Your task to perform on an android device: Open Youtube and go to the subscriptions tab Image 0: 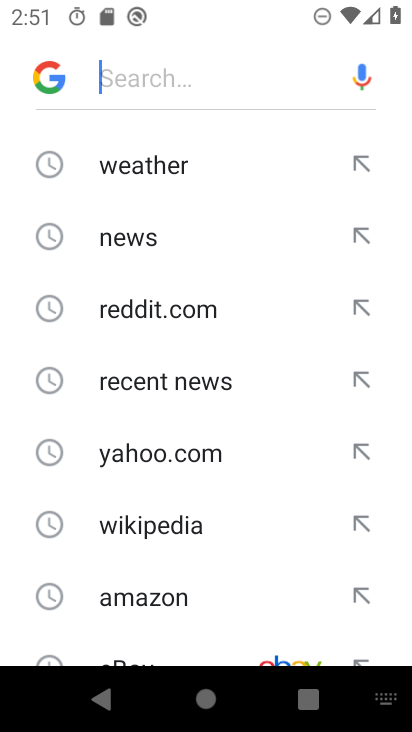
Step 0: press home button
Your task to perform on an android device: Open Youtube and go to the subscriptions tab Image 1: 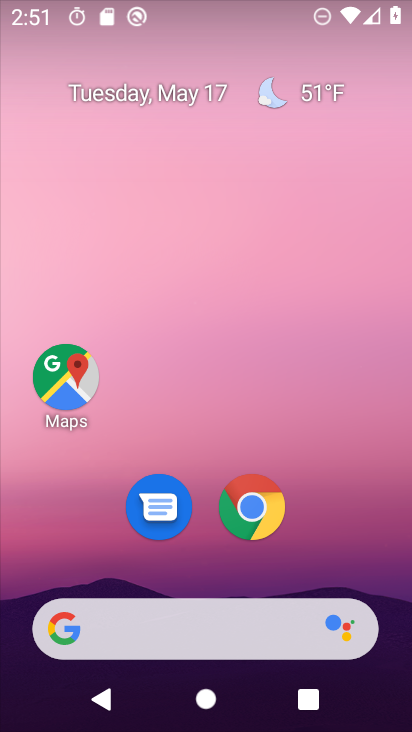
Step 1: drag from (199, 557) to (217, 158)
Your task to perform on an android device: Open Youtube and go to the subscriptions tab Image 2: 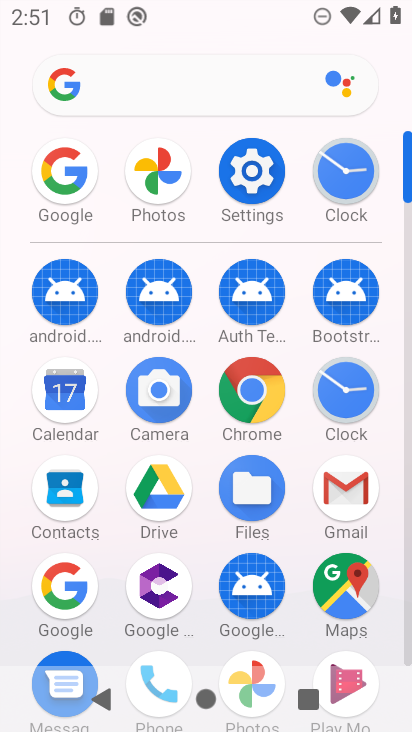
Step 2: drag from (287, 529) to (280, 168)
Your task to perform on an android device: Open Youtube and go to the subscriptions tab Image 3: 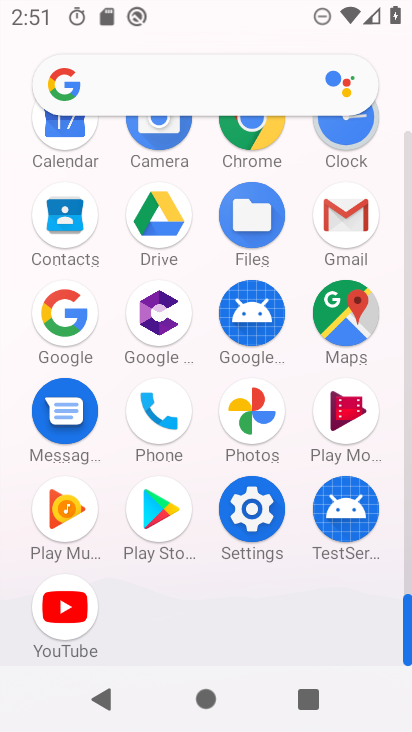
Step 3: click (66, 614)
Your task to perform on an android device: Open Youtube and go to the subscriptions tab Image 4: 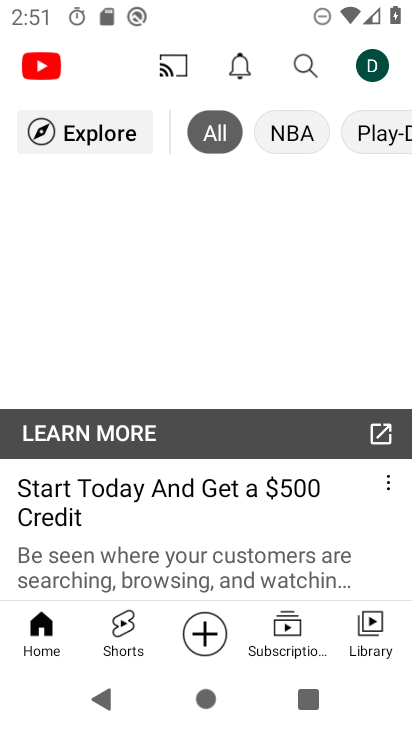
Step 4: click (281, 632)
Your task to perform on an android device: Open Youtube and go to the subscriptions tab Image 5: 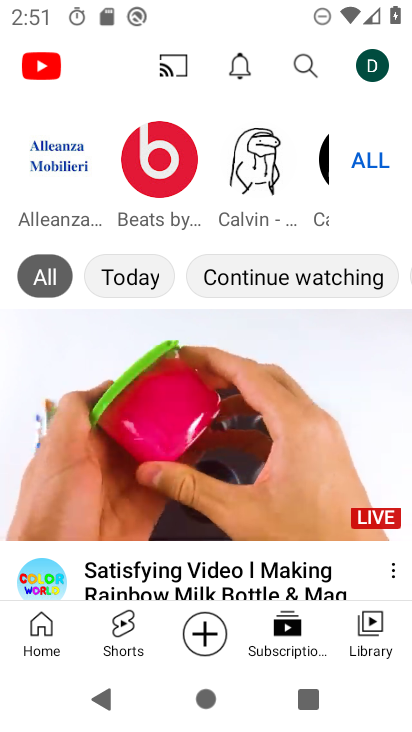
Step 5: task complete